Your task to perform on an android device: Go to battery settings Image 0: 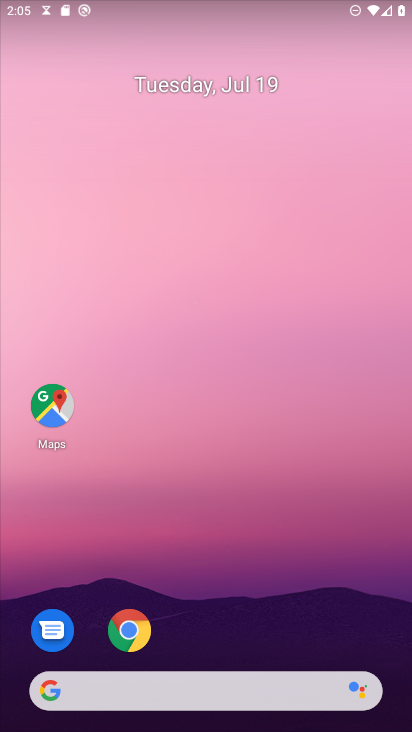
Step 0: drag from (236, 691) to (389, 130)
Your task to perform on an android device: Go to battery settings Image 1: 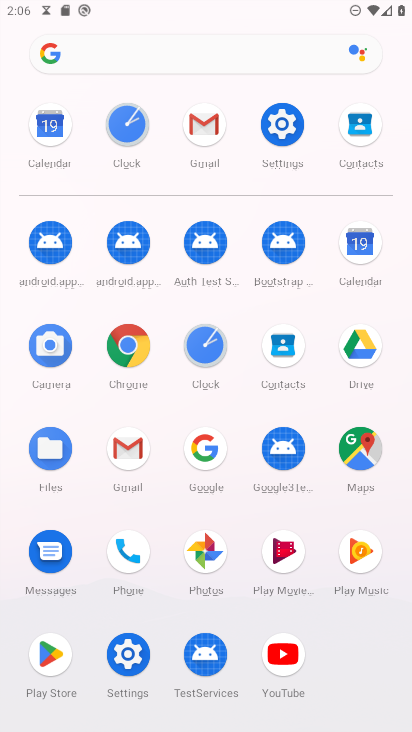
Step 1: click (294, 127)
Your task to perform on an android device: Go to battery settings Image 2: 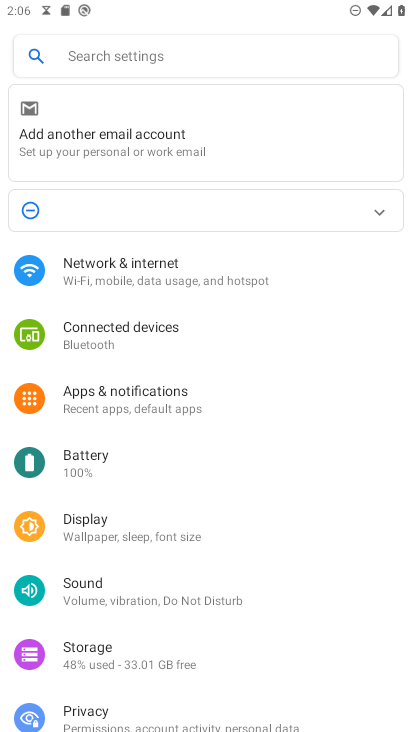
Step 2: click (98, 457)
Your task to perform on an android device: Go to battery settings Image 3: 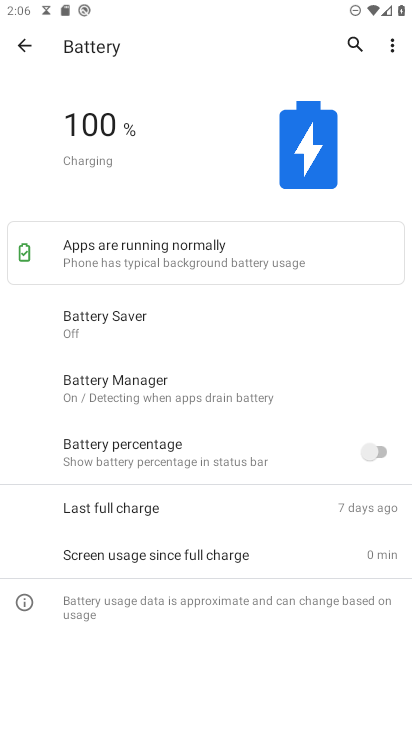
Step 3: task complete